Your task to perform on an android device: change the clock display to show seconds Image 0: 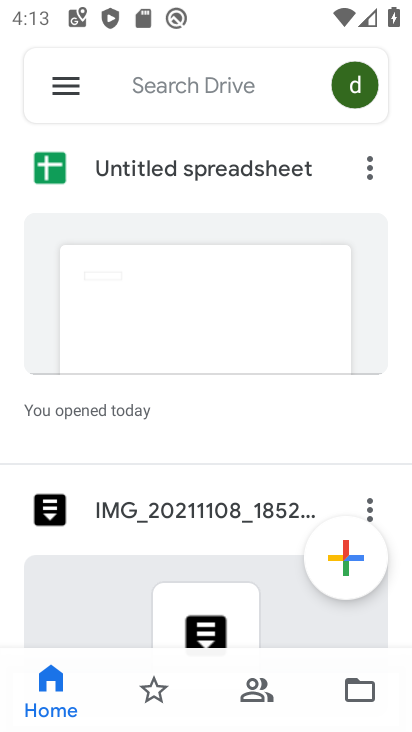
Step 0: press home button
Your task to perform on an android device: change the clock display to show seconds Image 1: 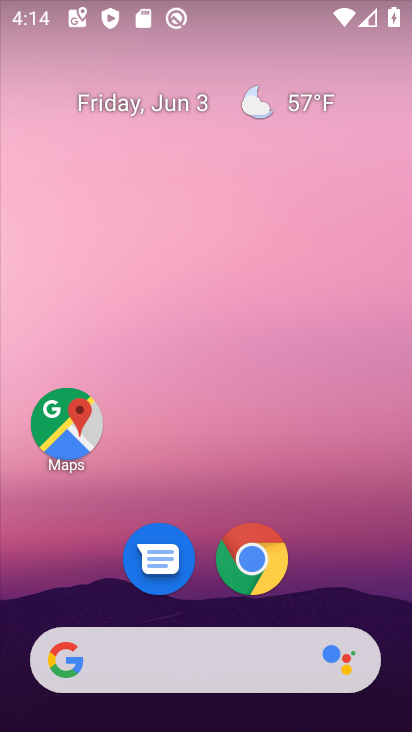
Step 1: drag from (330, 538) to (367, 145)
Your task to perform on an android device: change the clock display to show seconds Image 2: 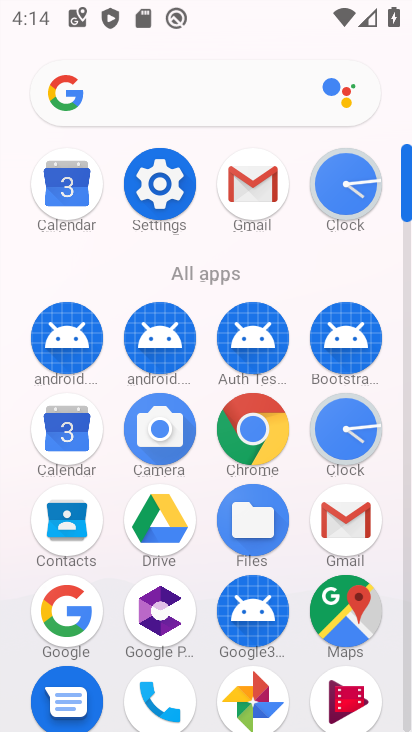
Step 2: click (168, 194)
Your task to perform on an android device: change the clock display to show seconds Image 3: 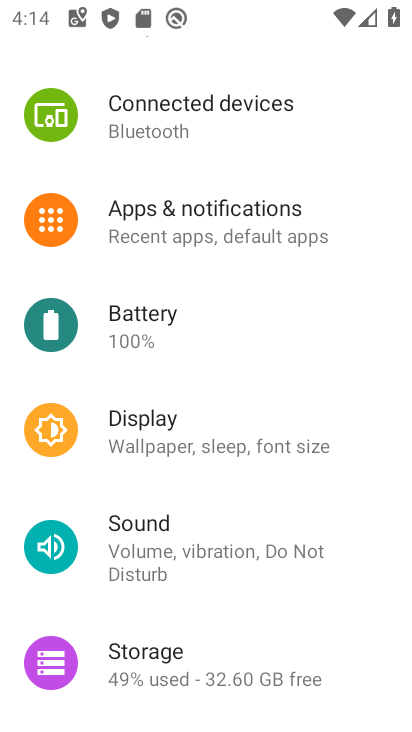
Step 3: click (135, 421)
Your task to perform on an android device: change the clock display to show seconds Image 4: 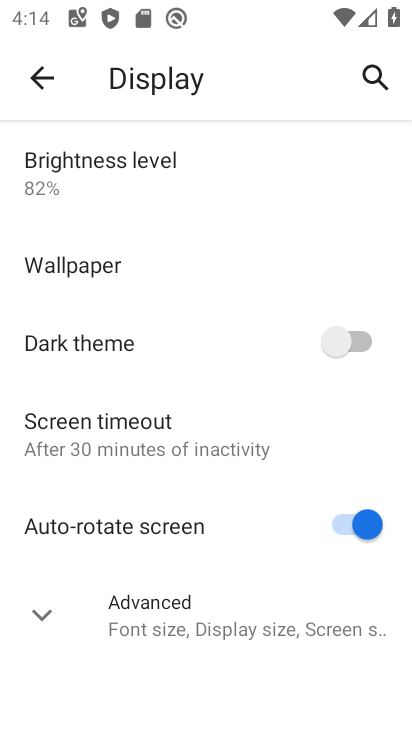
Step 4: drag from (223, 196) to (170, 547)
Your task to perform on an android device: change the clock display to show seconds Image 5: 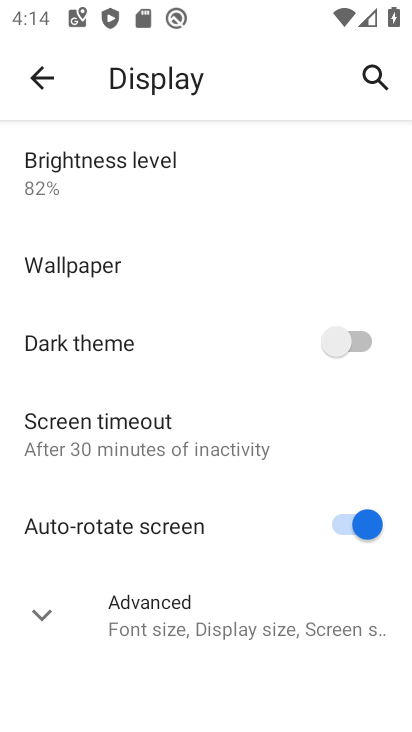
Step 5: click (30, 75)
Your task to perform on an android device: change the clock display to show seconds Image 6: 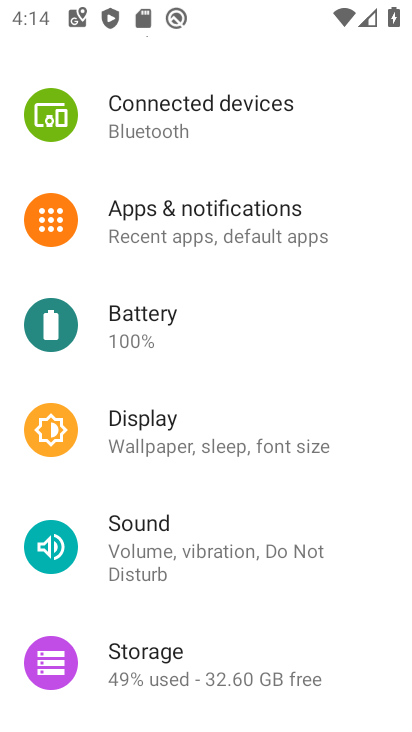
Step 6: press home button
Your task to perform on an android device: change the clock display to show seconds Image 7: 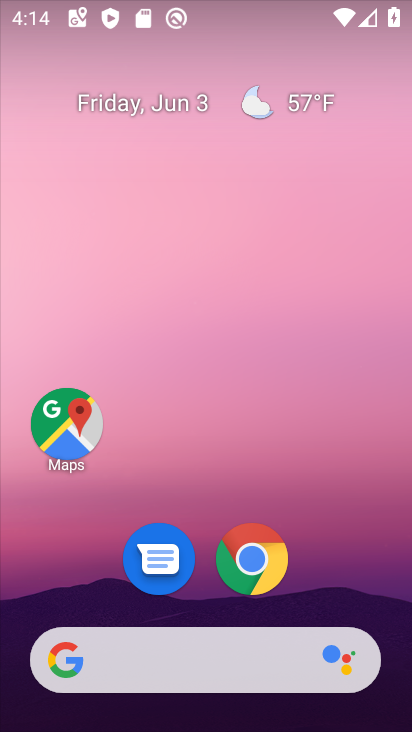
Step 7: drag from (389, 563) to (408, 463)
Your task to perform on an android device: change the clock display to show seconds Image 8: 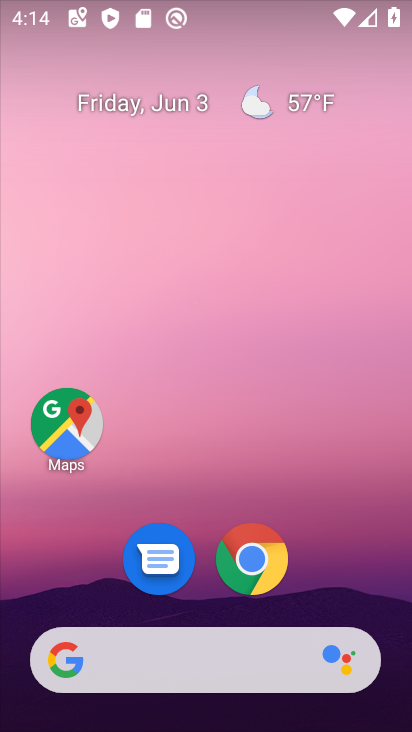
Step 8: drag from (313, 562) to (301, 191)
Your task to perform on an android device: change the clock display to show seconds Image 9: 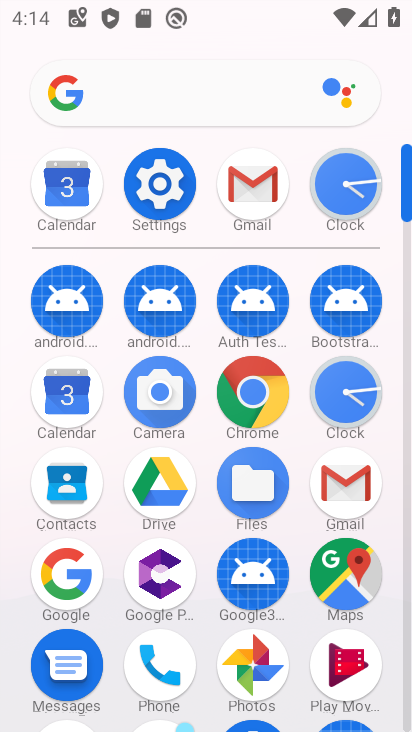
Step 9: click (339, 390)
Your task to perform on an android device: change the clock display to show seconds Image 10: 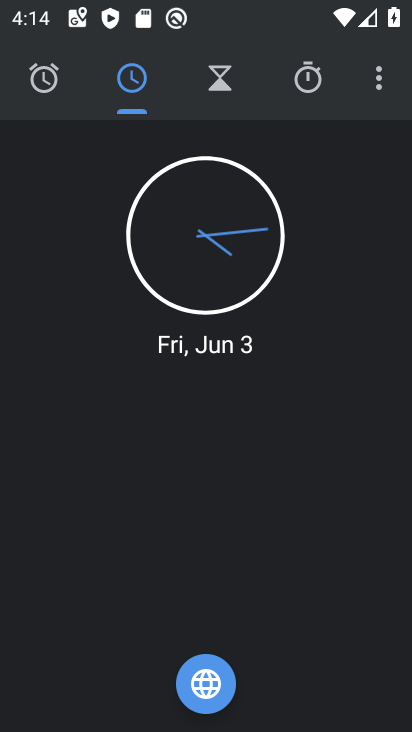
Step 10: click (383, 80)
Your task to perform on an android device: change the clock display to show seconds Image 11: 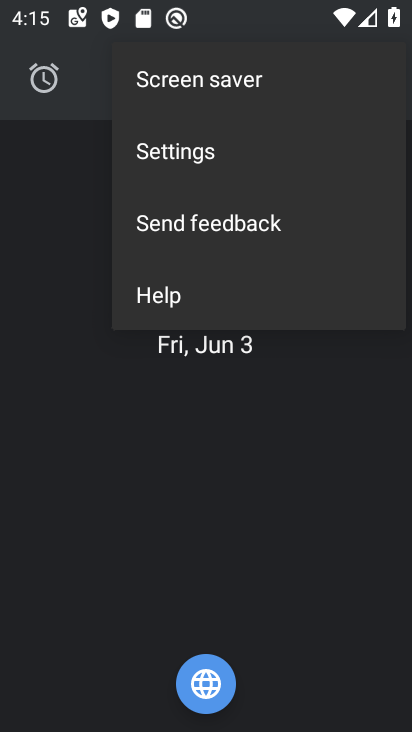
Step 11: click (210, 166)
Your task to perform on an android device: change the clock display to show seconds Image 12: 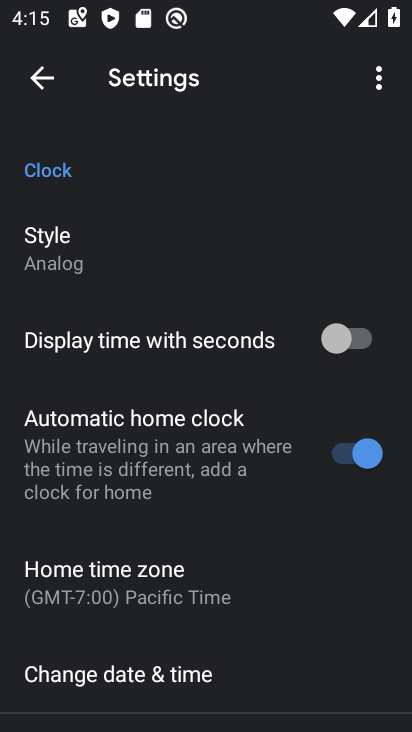
Step 12: click (353, 335)
Your task to perform on an android device: change the clock display to show seconds Image 13: 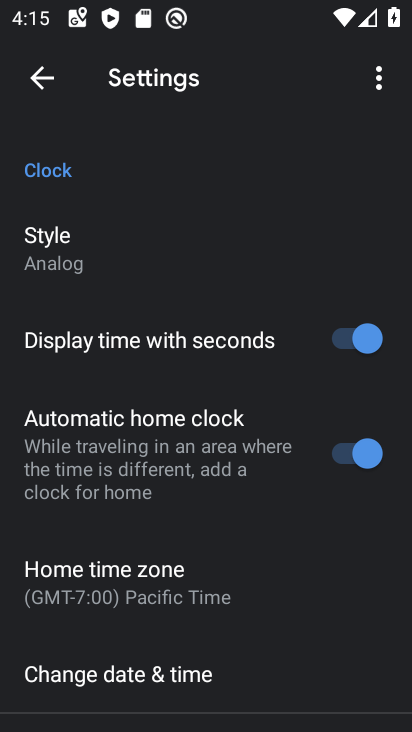
Step 13: task complete